Your task to perform on an android device: Open calendar and show me the second week of next month Image 0: 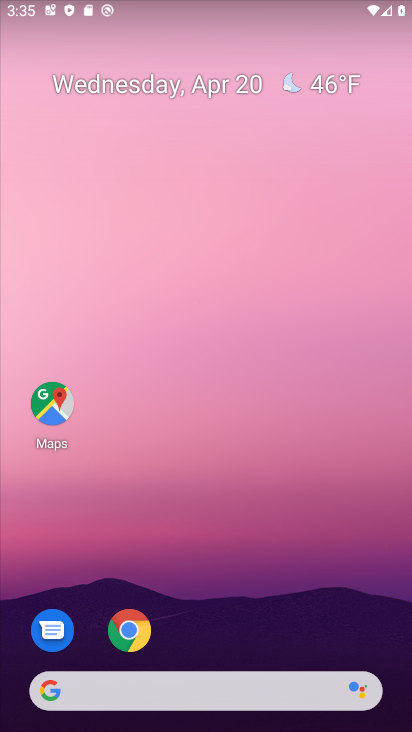
Step 0: click (131, 633)
Your task to perform on an android device: Open calendar and show me the second week of next month Image 1: 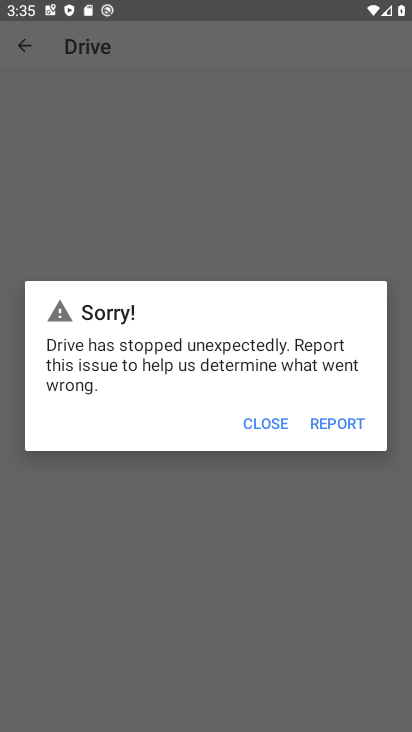
Step 1: click (274, 420)
Your task to perform on an android device: Open calendar and show me the second week of next month Image 2: 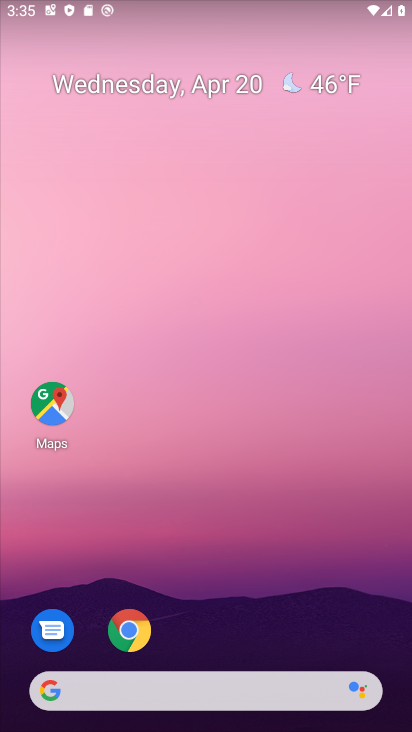
Step 2: drag from (220, 670) to (234, 221)
Your task to perform on an android device: Open calendar and show me the second week of next month Image 3: 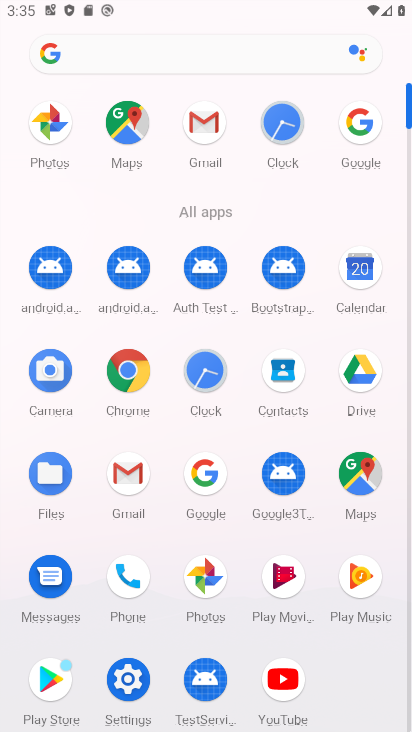
Step 3: click (354, 268)
Your task to perform on an android device: Open calendar and show me the second week of next month Image 4: 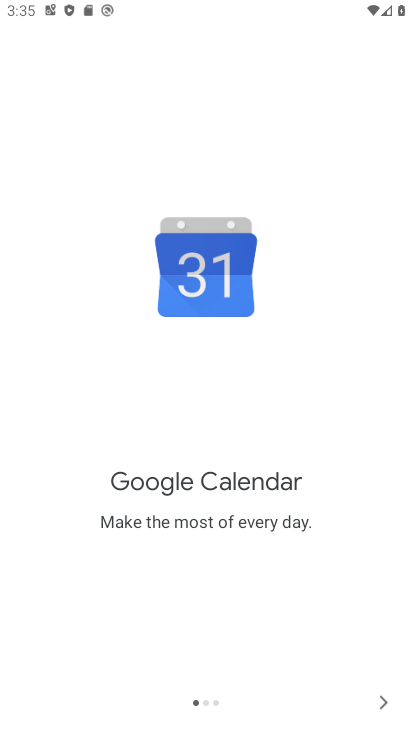
Step 4: click (388, 699)
Your task to perform on an android device: Open calendar and show me the second week of next month Image 5: 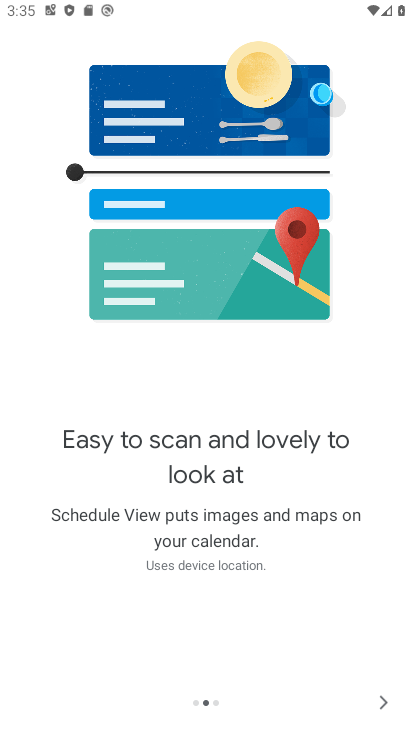
Step 5: click (388, 699)
Your task to perform on an android device: Open calendar and show me the second week of next month Image 6: 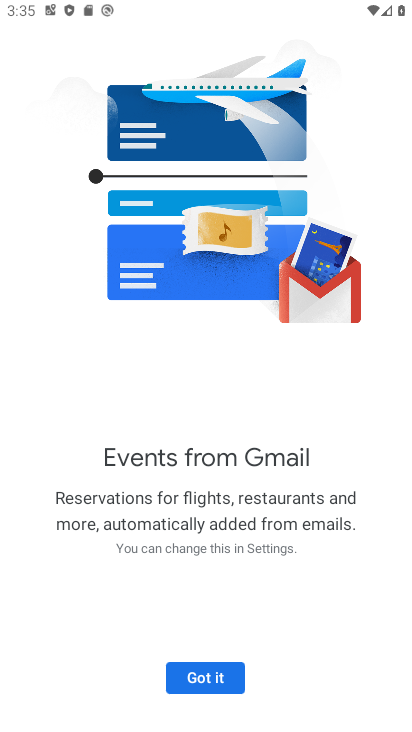
Step 6: click (221, 674)
Your task to perform on an android device: Open calendar and show me the second week of next month Image 7: 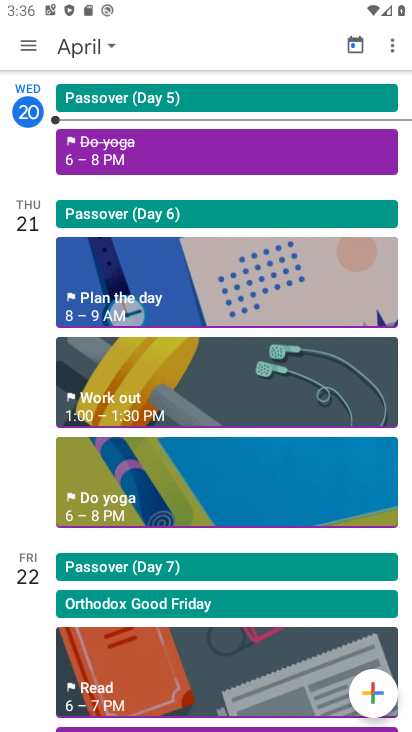
Step 7: click (84, 46)
Your task to perform on an android device: Open calendar and show me the second week of next month Image 8: 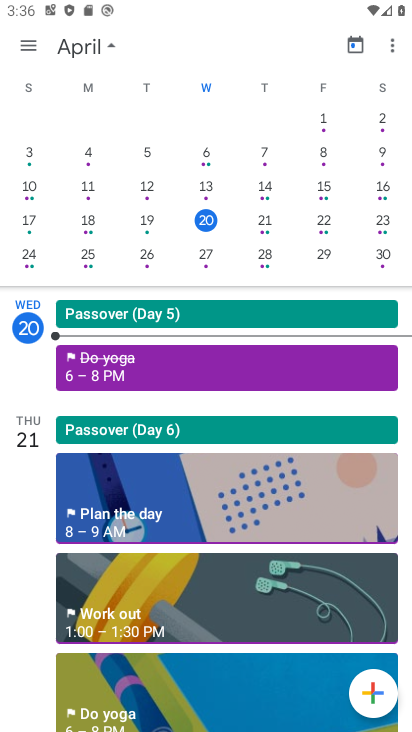
Step 8: drag from (398, 197) to (49, 231)
Your task to perform on an android device: Open calendar and show me the second week of next month Image 9: 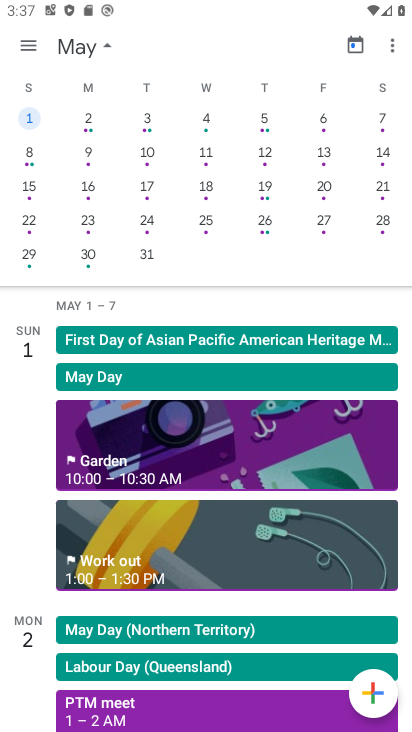
Step 9: click (30, 161)
Your task to perform on an android device: Open calendar and show me the second week of next month Image 10: 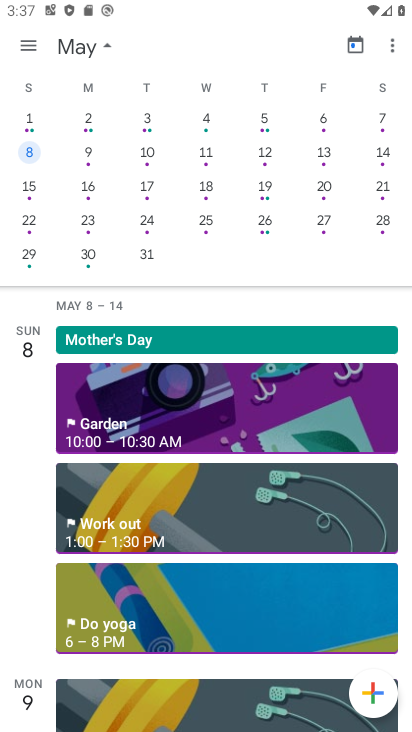
Step 10: task complete